Your task to perform on an android device: toggle translation in the chrome app Image 0: 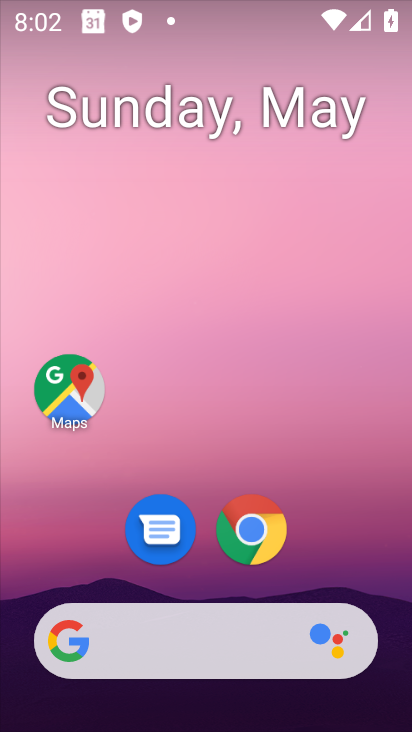
Step 0: click (246, 524)
Your task to perform on an android device: toggle translation in the chrome app Image 1: 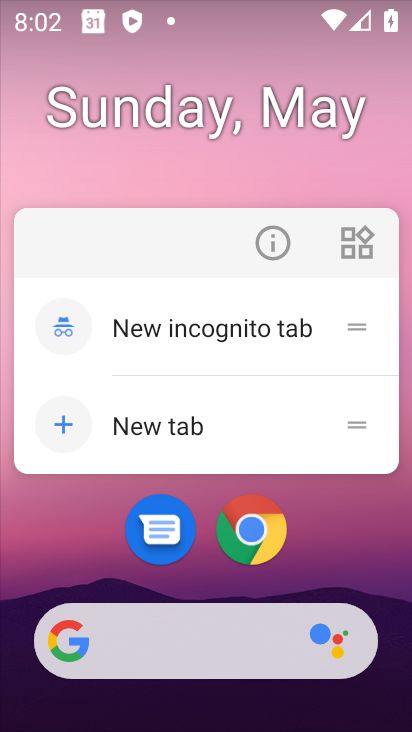
Step 1: click (262, 515)
Your task to perform on an android device: toggle translation in the chrome app Image 2: 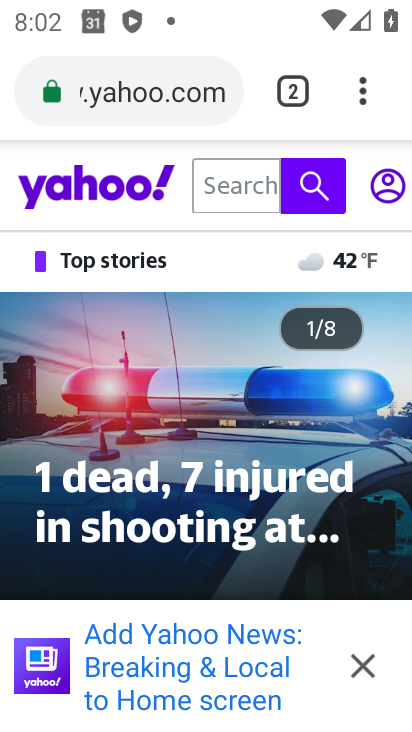
Step 2: drag from (361, 88) to (100, 556)
Your task to perform on an android device: toggle translation in the chrome app Image 3: 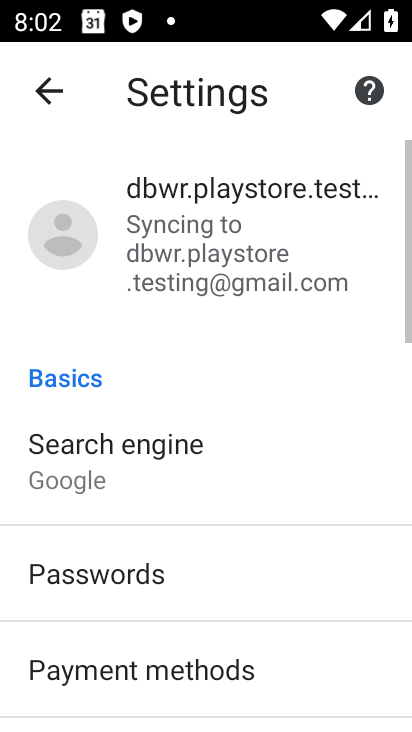
Step 3: drag from (101, 640) to (243, 114)
Your task to perform on an android device: toggle translation in the chrome app Image 4: 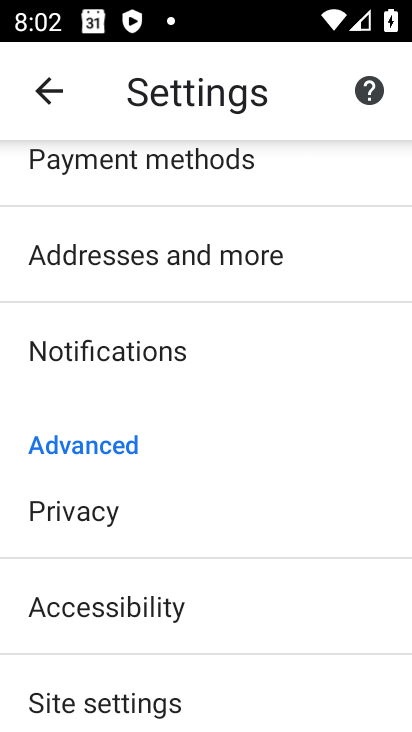
Step 4: drag from (194, 642) to (260, 194)
Your task to perform on an android device: toggle translation in the chrome app Image 5: 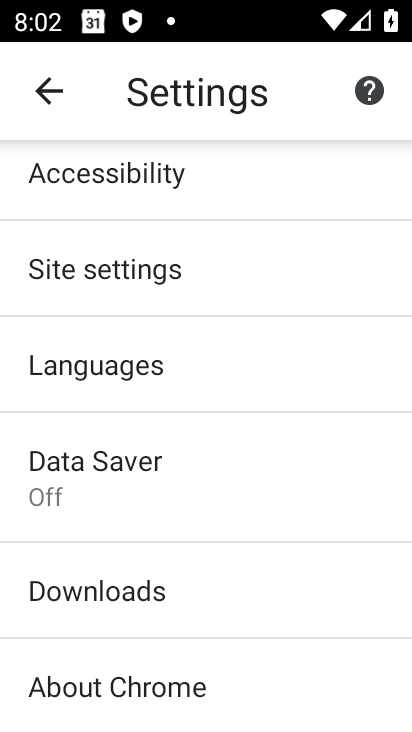
Step 5: click (142, 366)
Your task to perform on an android device: toggle translation in the chrome app Image 6: 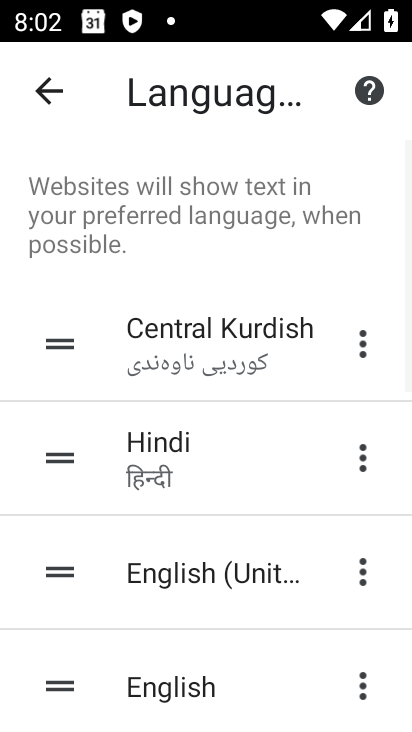
Step 6: task complete